Your task to perform on an android device: star an email in the gmail app Image 0: 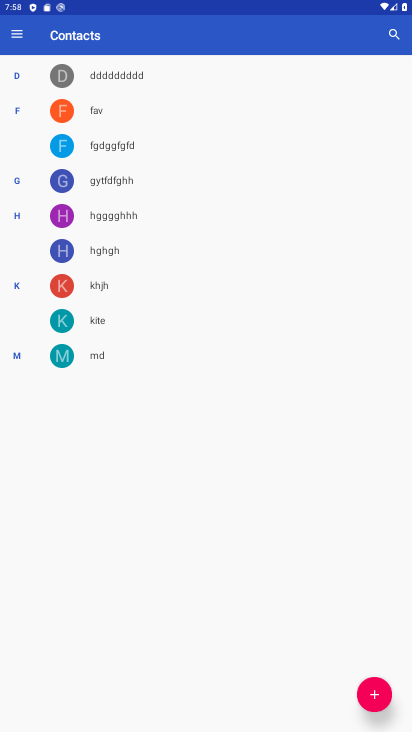
Step 0: press home button
Your task to perform on an android device: star an email in the gmail app Image 1: 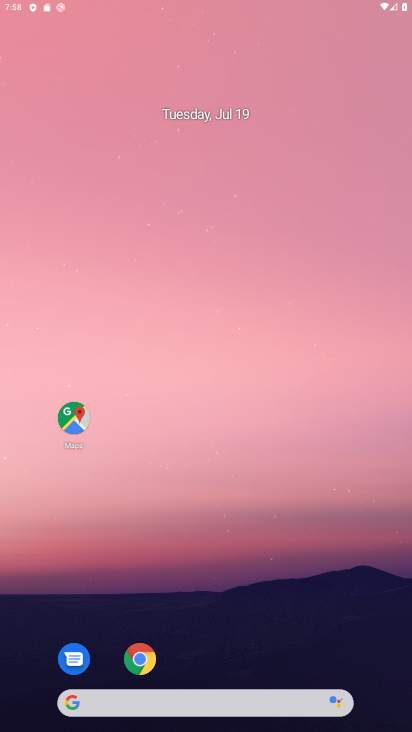
Step 1: drag from (266, 656) to (369, 66)
Your task to perform on an android device: star an email in the gmail app Image 2: 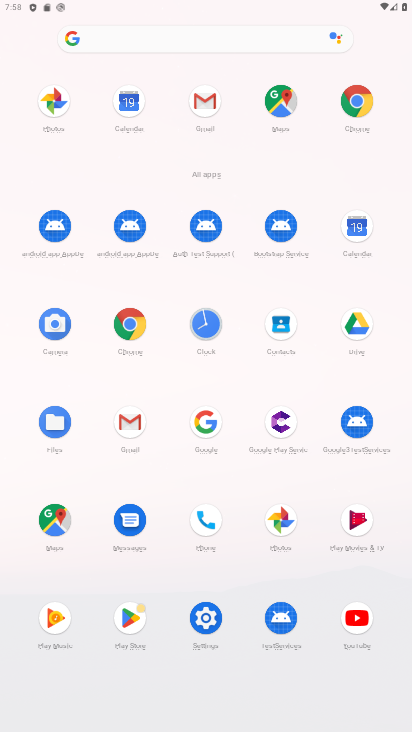
Step 2: click (136, 410)
Your task to perform on an android device: star an email in the gmail app Image 3: 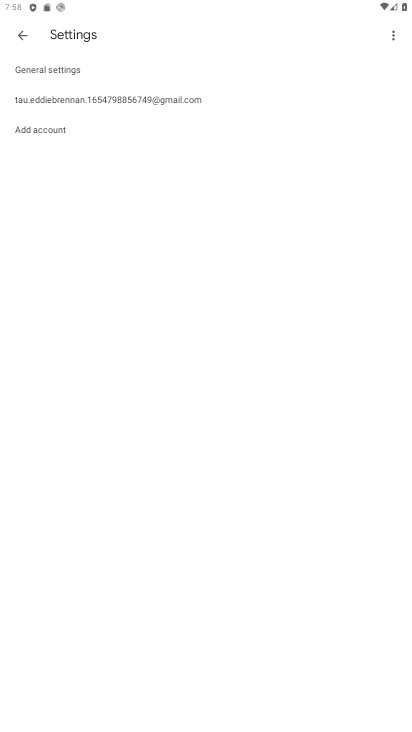
Step 3: click (26, 33)
Your task to perform on an android device: star an email in the gmail app Image 4: 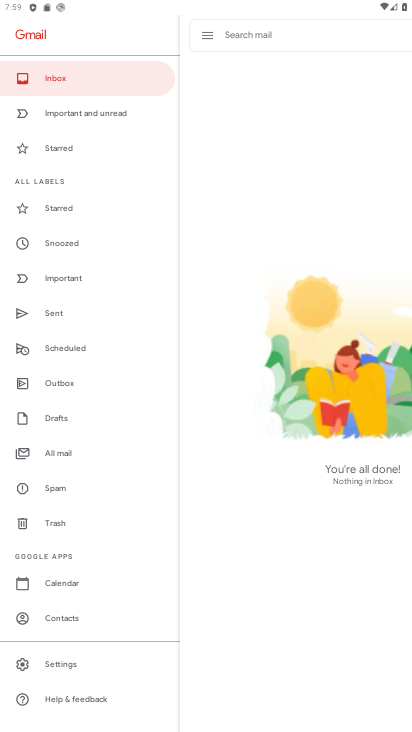
Step 4: task complete